Your task to perform on an android device: Toggle the flashlight Image 0: 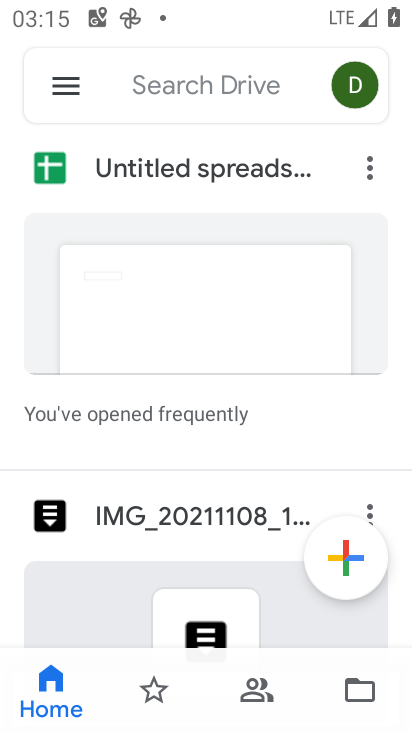
Step 0: press home button
Your task to perform on an android device: Toggle the flashlight Image 1: 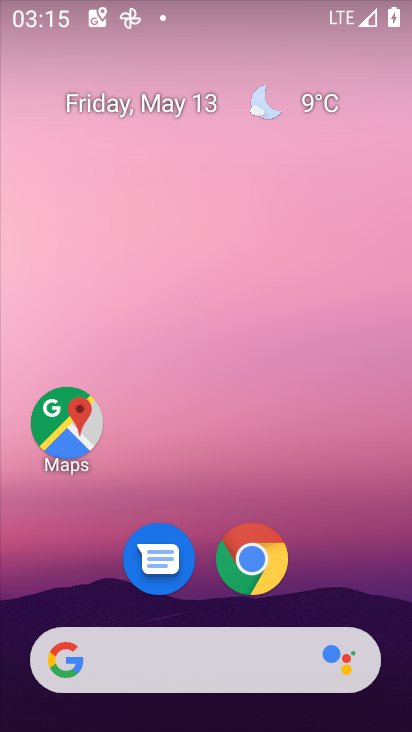
Step 1: drag from (403, 684) to (344, 332)
Your task to perform on an android device: Toggle the flashlight Image 2: 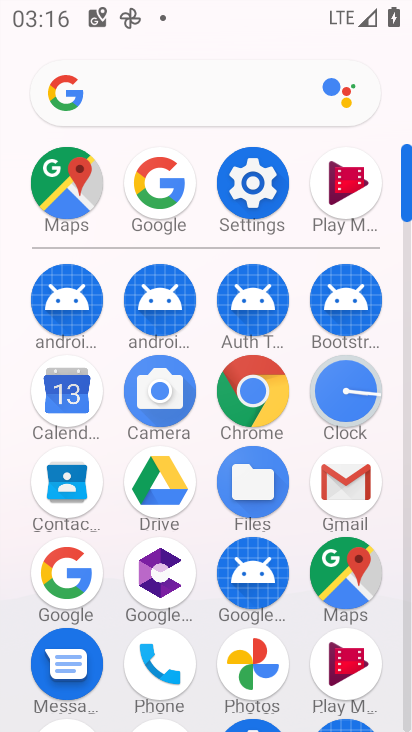
Step 2: click (251, 194)
Your task to perform on an android device: Toggle the flashlight Image 3: 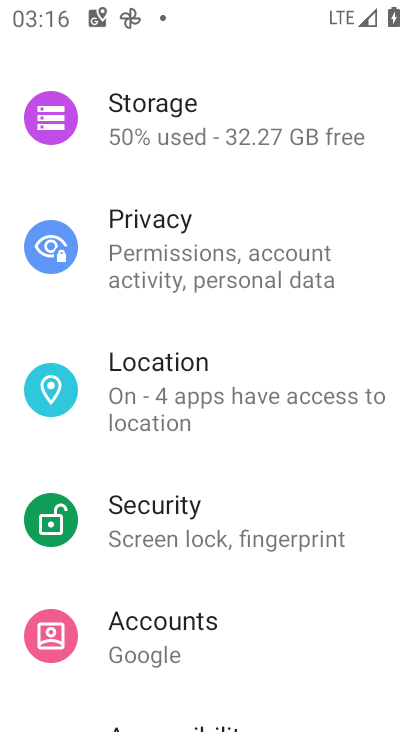
Step 3: task complete